Your task to perform on an android device: add a contact Image 0: 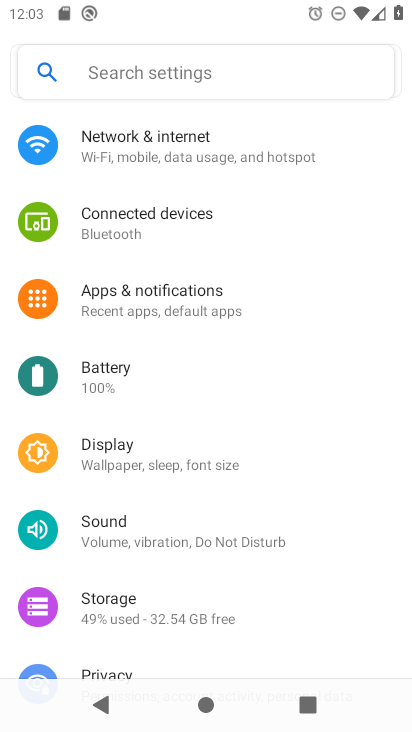
Step 0: drag from (204, 578) to (207, 107)
Your task to perform on an android device: add a contact Image 1: 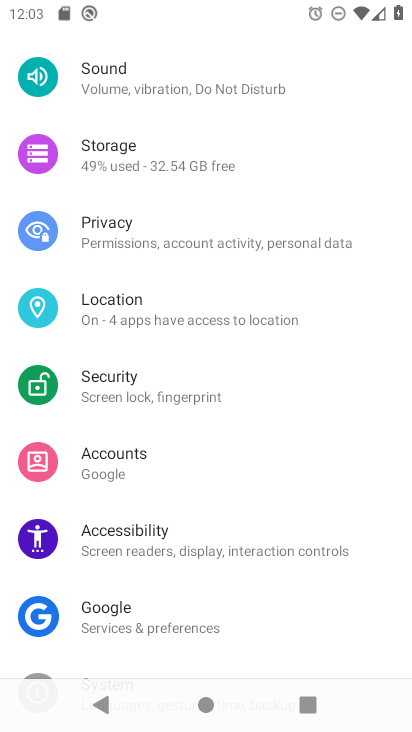
Step 1: press home button
Your task to perform on an android device: add a contact Image 2: 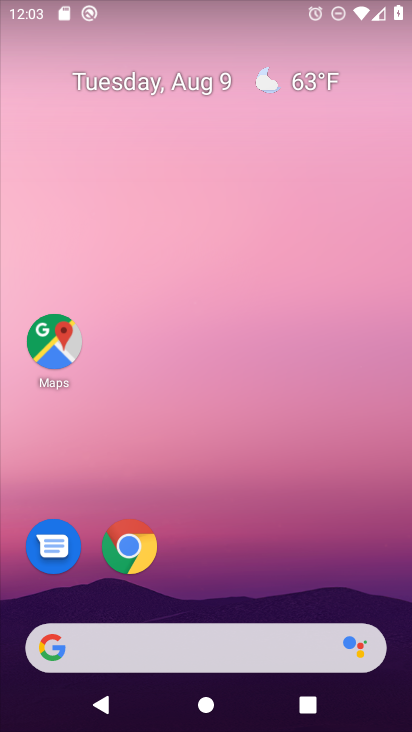
Step 2: drag from (227, 592) to (236, 106)
Your task to perform on an android device: add a contact Image 3: 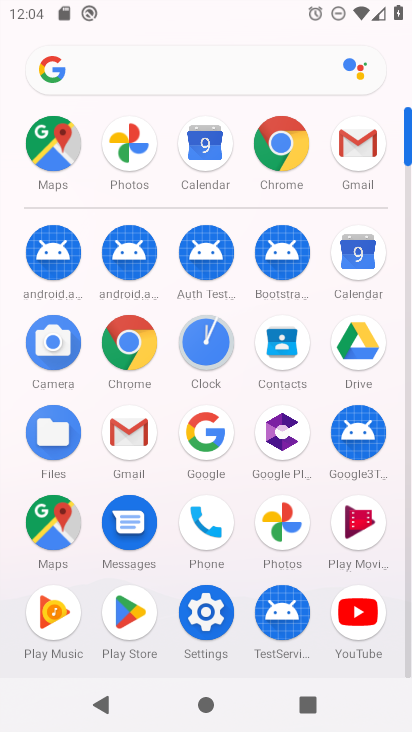
Step 3: click (277, 334)
Your task to perform on an android device: add a contact Image 4: 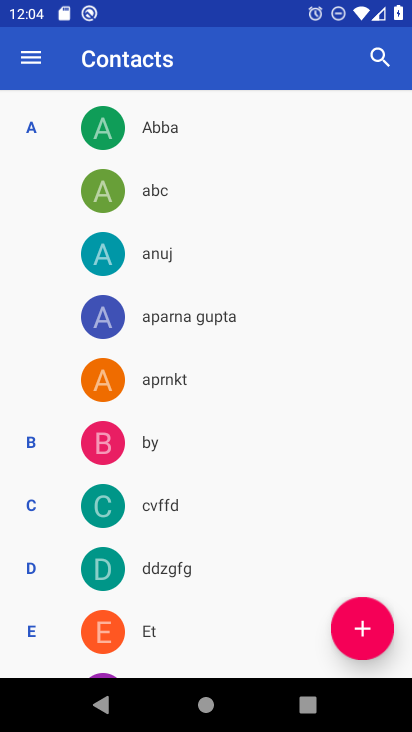
Step 4: click (362, 628)
Your task to perform on an android device: add a contact Image 5: 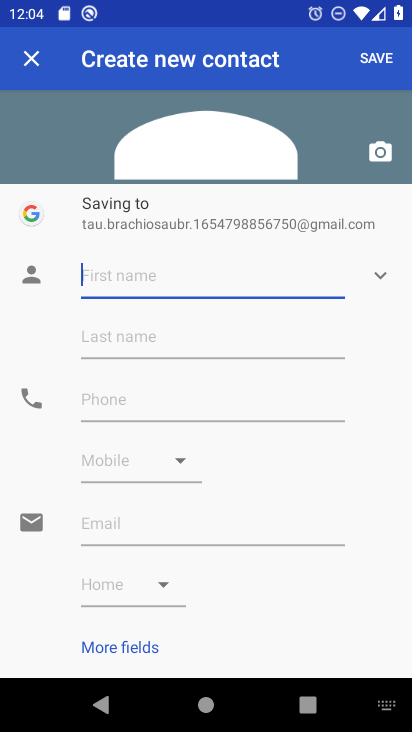
Step 5: type "nfrstgvkh"
Your task to perform on an android device: add a contact Image 6: 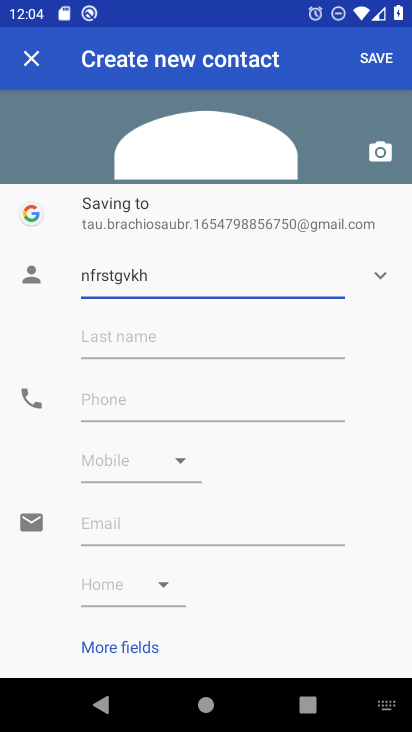
Step 6: click (372, 58)
Your task to perform on an android device: add a contact Image 7: 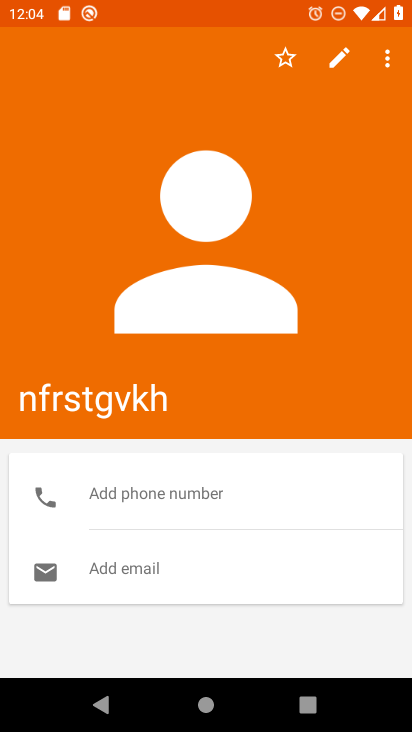
Step 7: task complete